Your task to perform on an android device: change alarm snooze length Image 0: 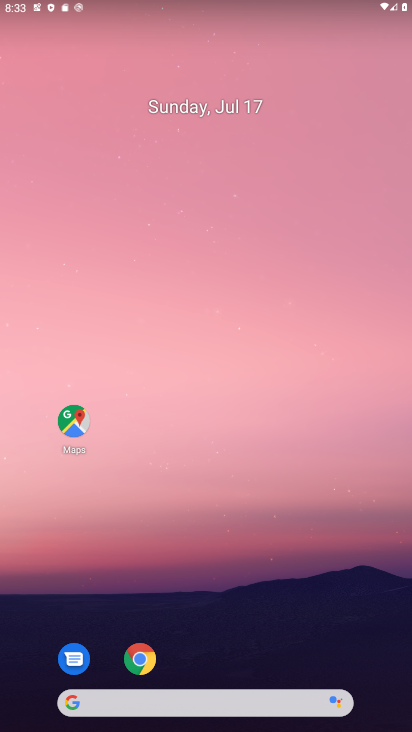
Step 0: drag from (200, 663) to (242, 88)
Your task to perform on an android device: change alarm snooze length Image 1: 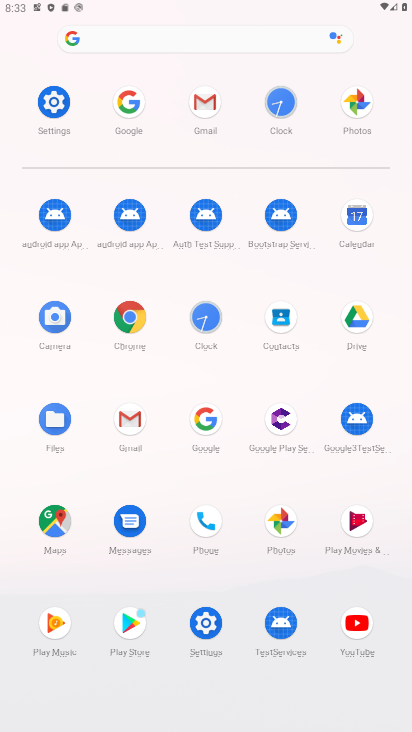
Step 1: click (274, 118)
Your task to perform on an android device: change alarm snooze length Image 2: 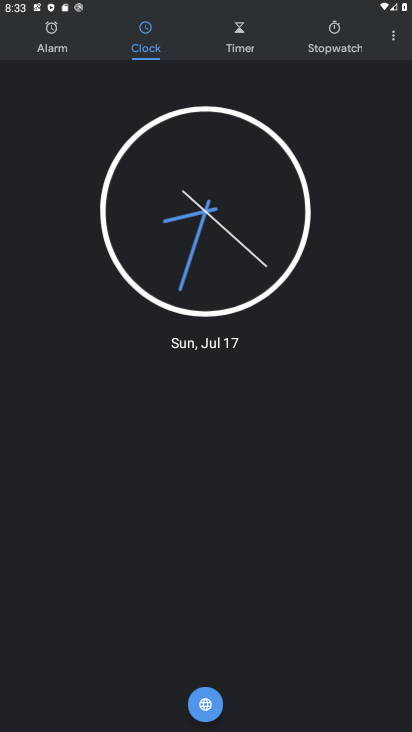
Step 2: click (394, 39)
Your task to perform on an android device: change alarm snooze length Image 3: 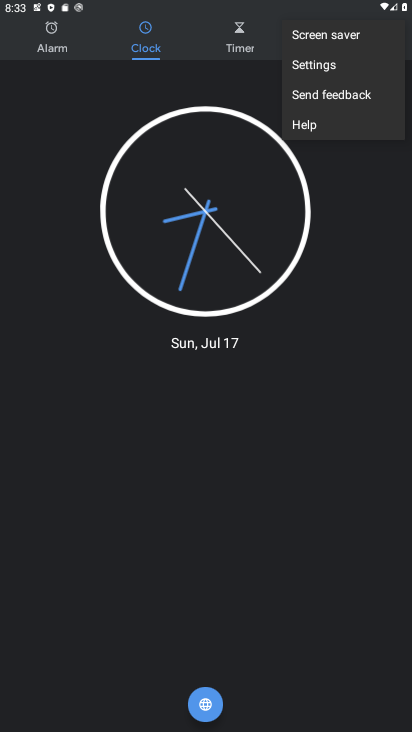
Step 3: click (342, 71)
Your task to perform on an android device: change alarm snooze length Image 4: 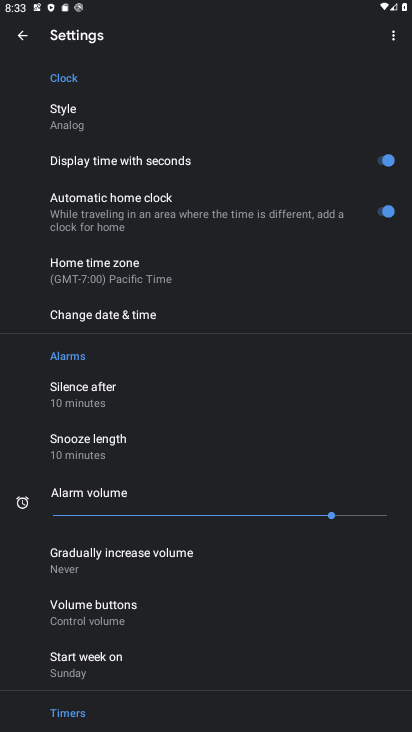
Step 4: click (141, 437)
Your task to perform on an android device: change alarm snooze length Image 5: 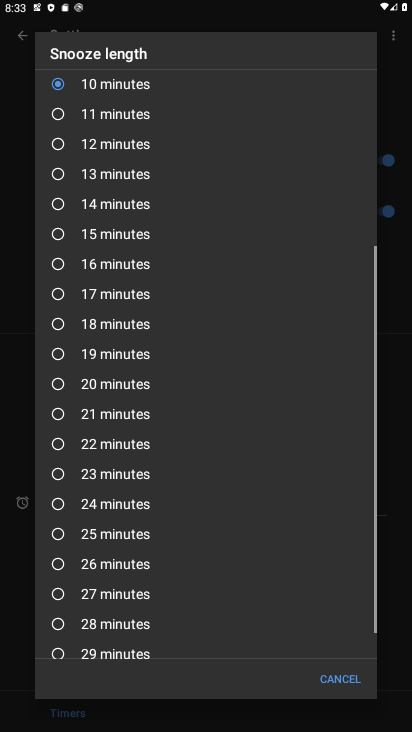
Step 5: click (132, 496)
Your task to perform on an android device: change alarm snooze length Image 6: 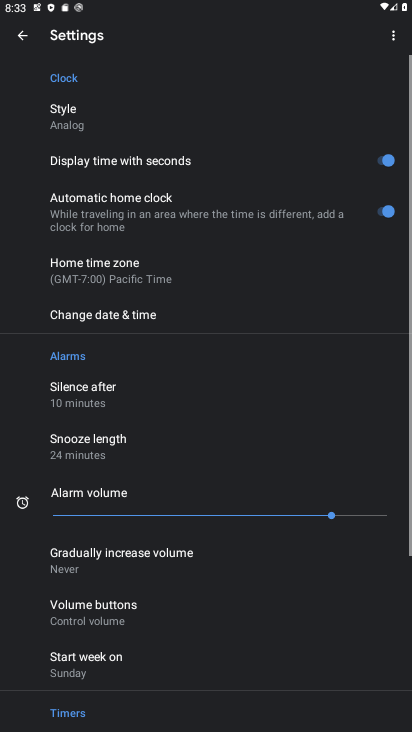
Step 6: task complete